Your task to perform on an android device: Open Maps and search for coffee Image 0: 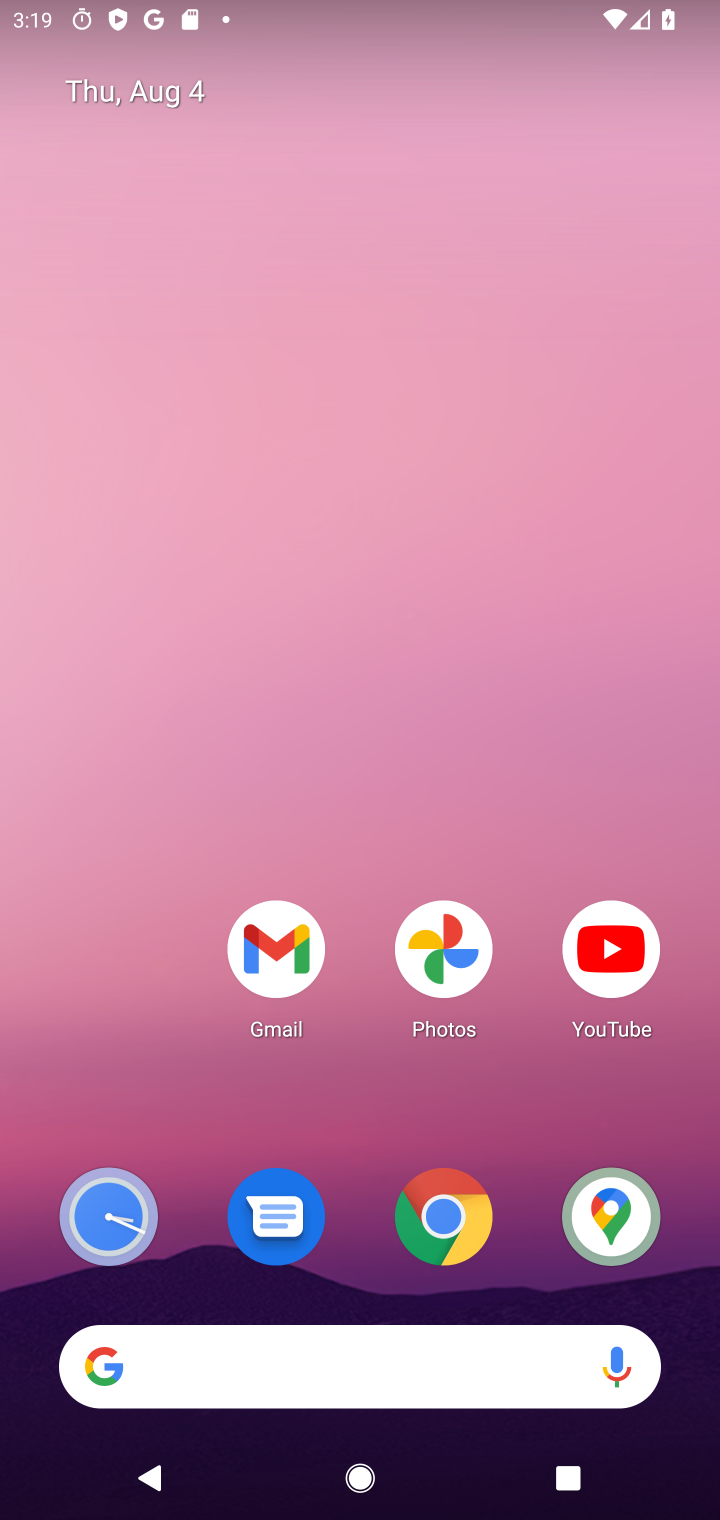
Step 0: click (613, 1207)
Your task to perform on an android device: Open Maps and search for coffee Image 1: 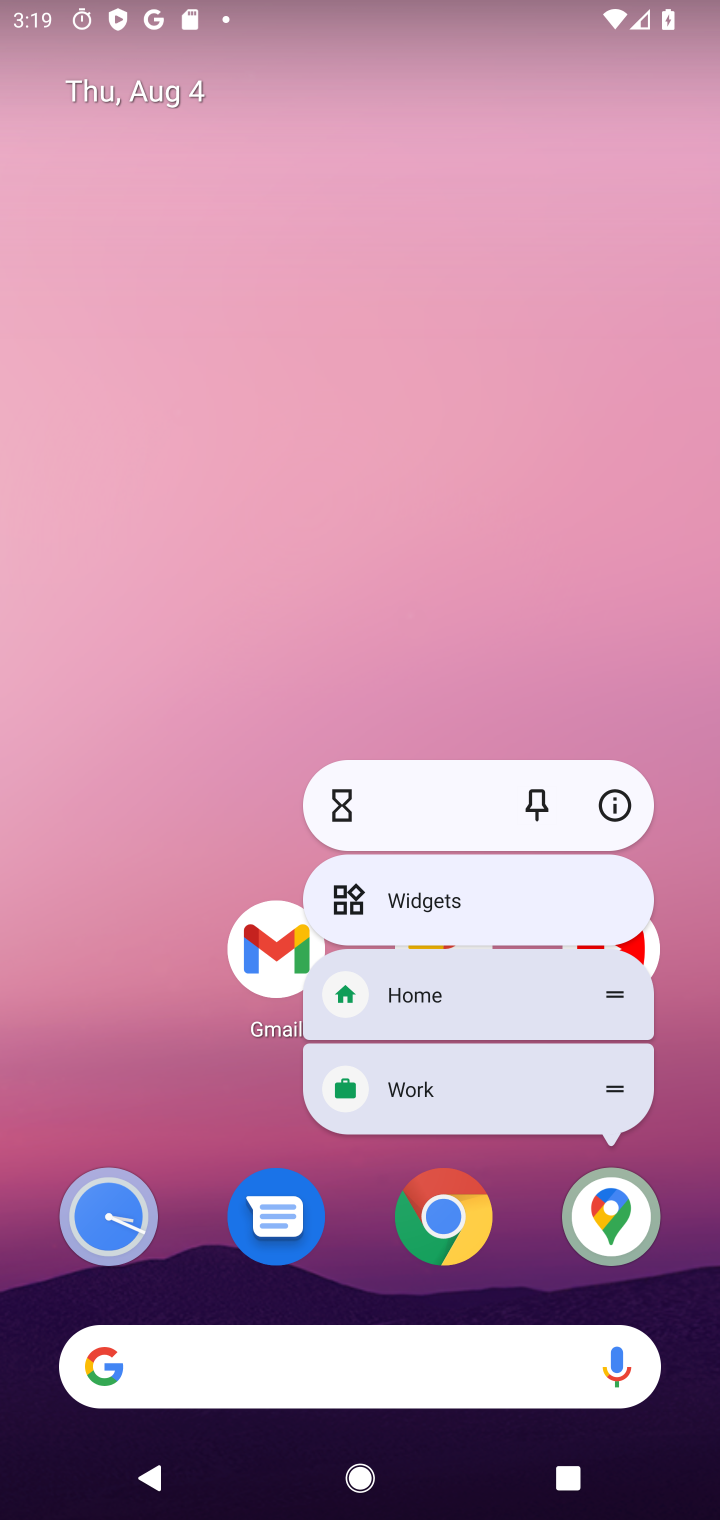
Step 1: click (609, 1205)
Your task to perform on an android device: Open Maps and search for coffee Image 2: 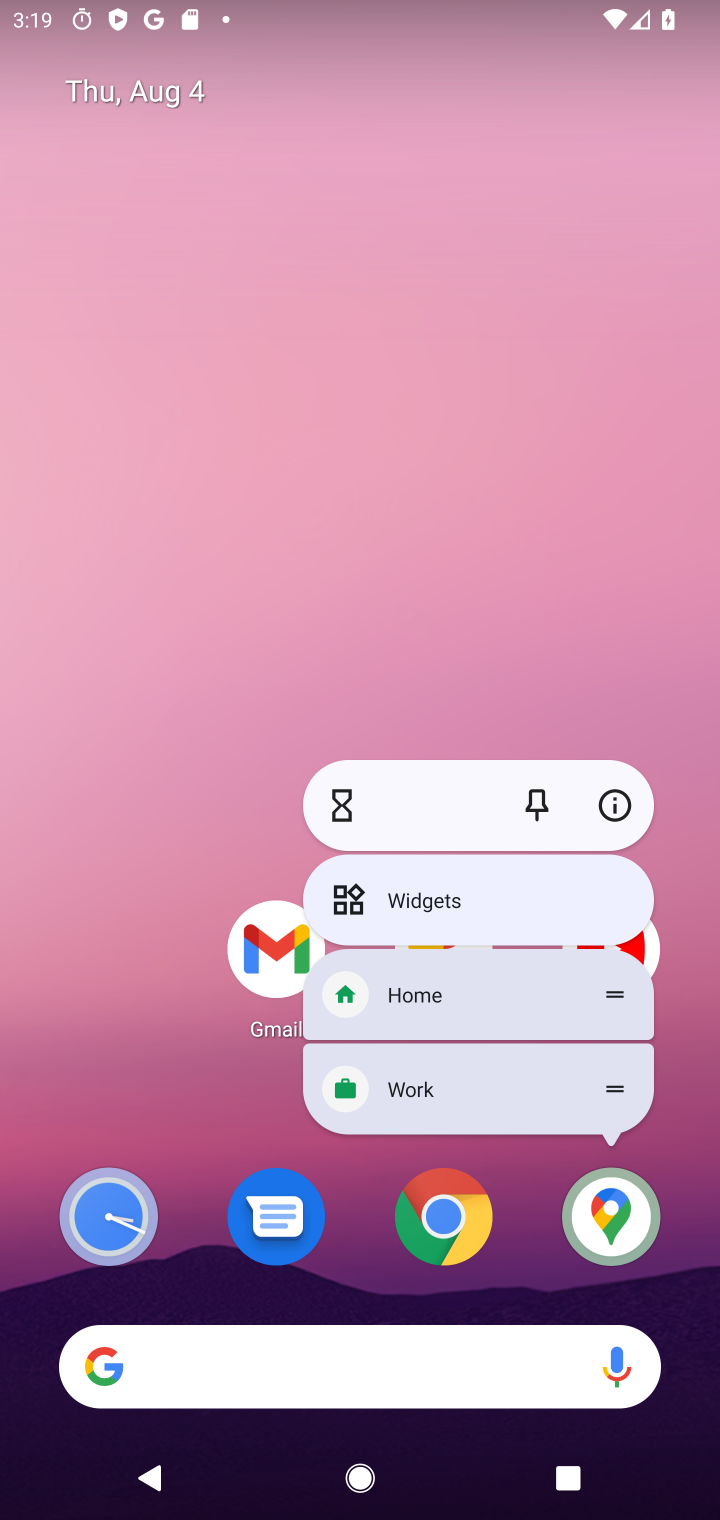
Step 2: click (603, 1234)
Your task to perform on an android device: Open Maps and search for coffee Image 3: 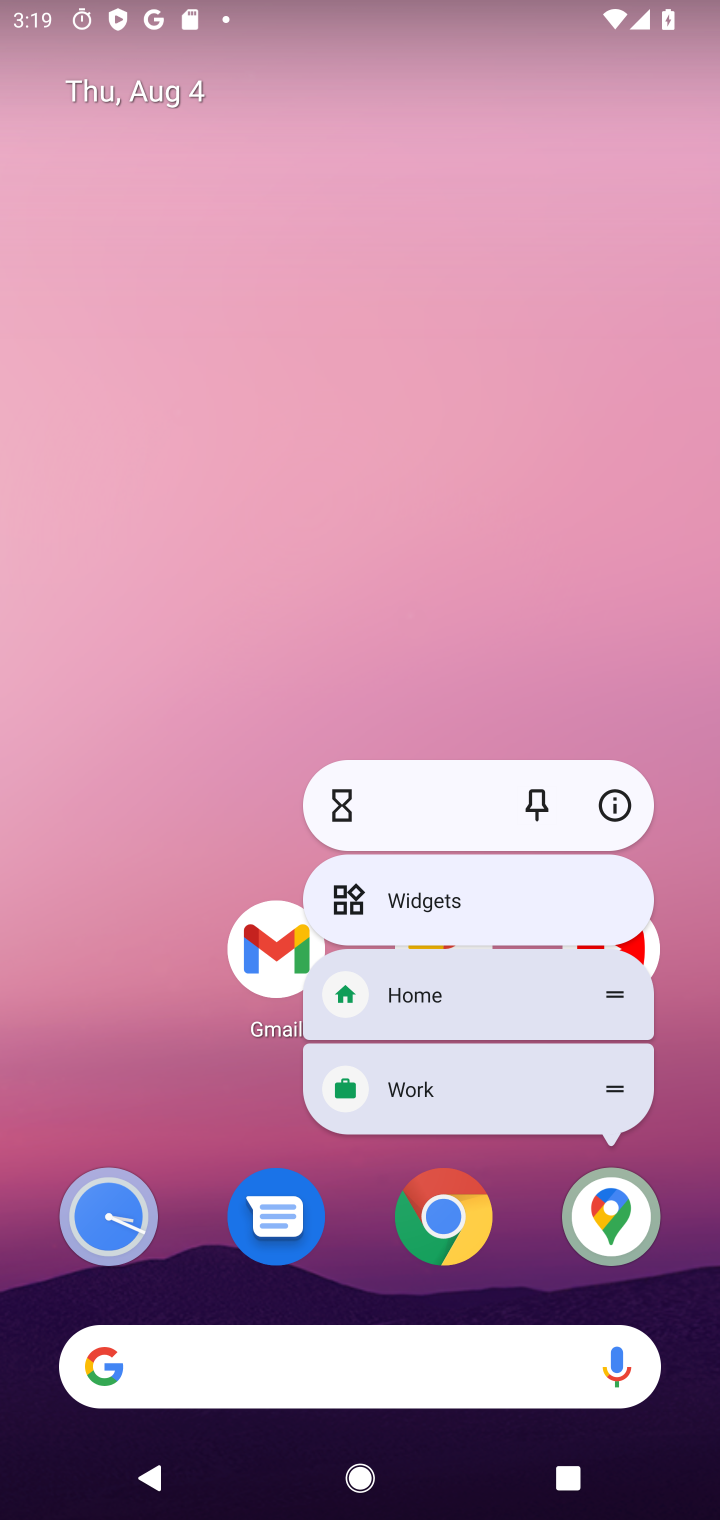
Step 3: click (617, 1215)
Your task to perform on an android device: Open Maps and search for coffee Image 4: 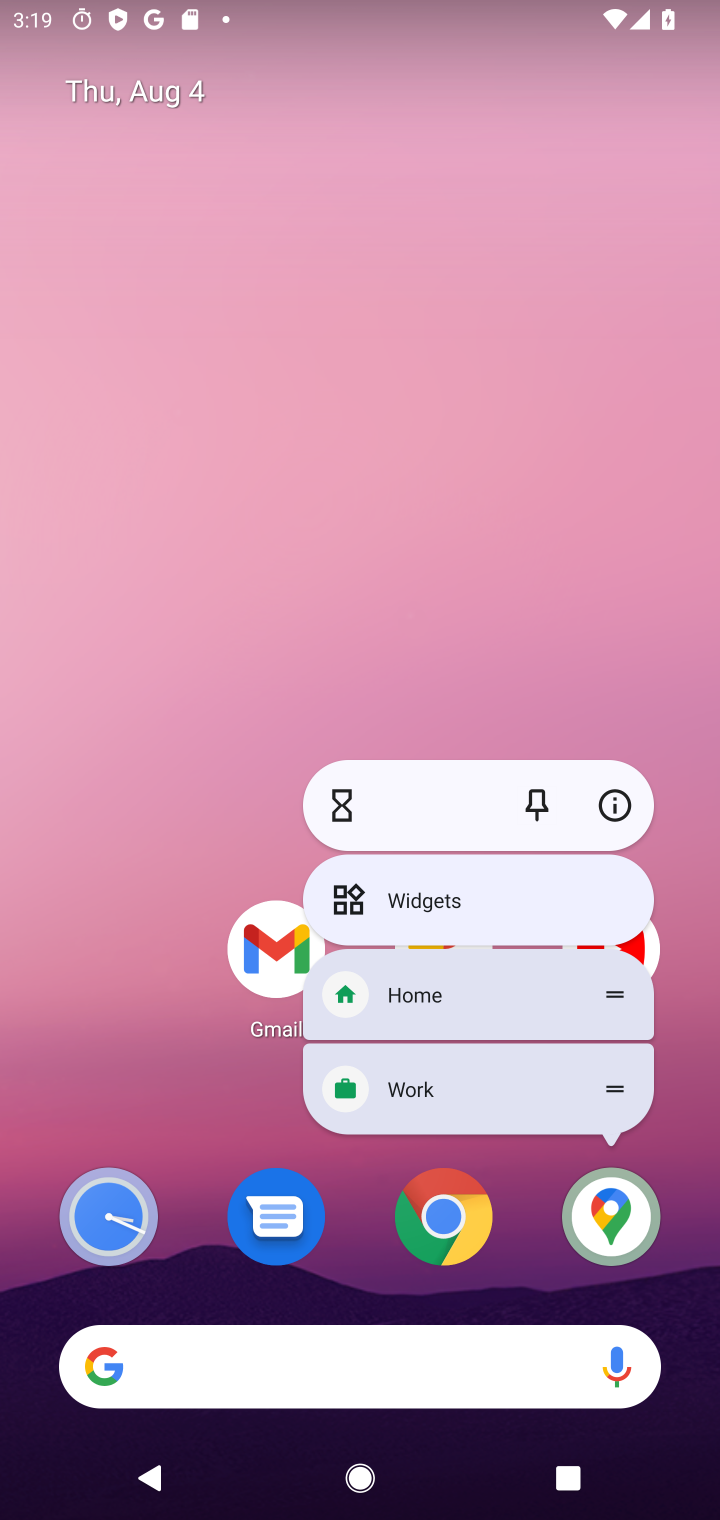
Step 4: click (617, 1215)
Your task to perform on an android device: Open Maps and search for coffee Image 5: 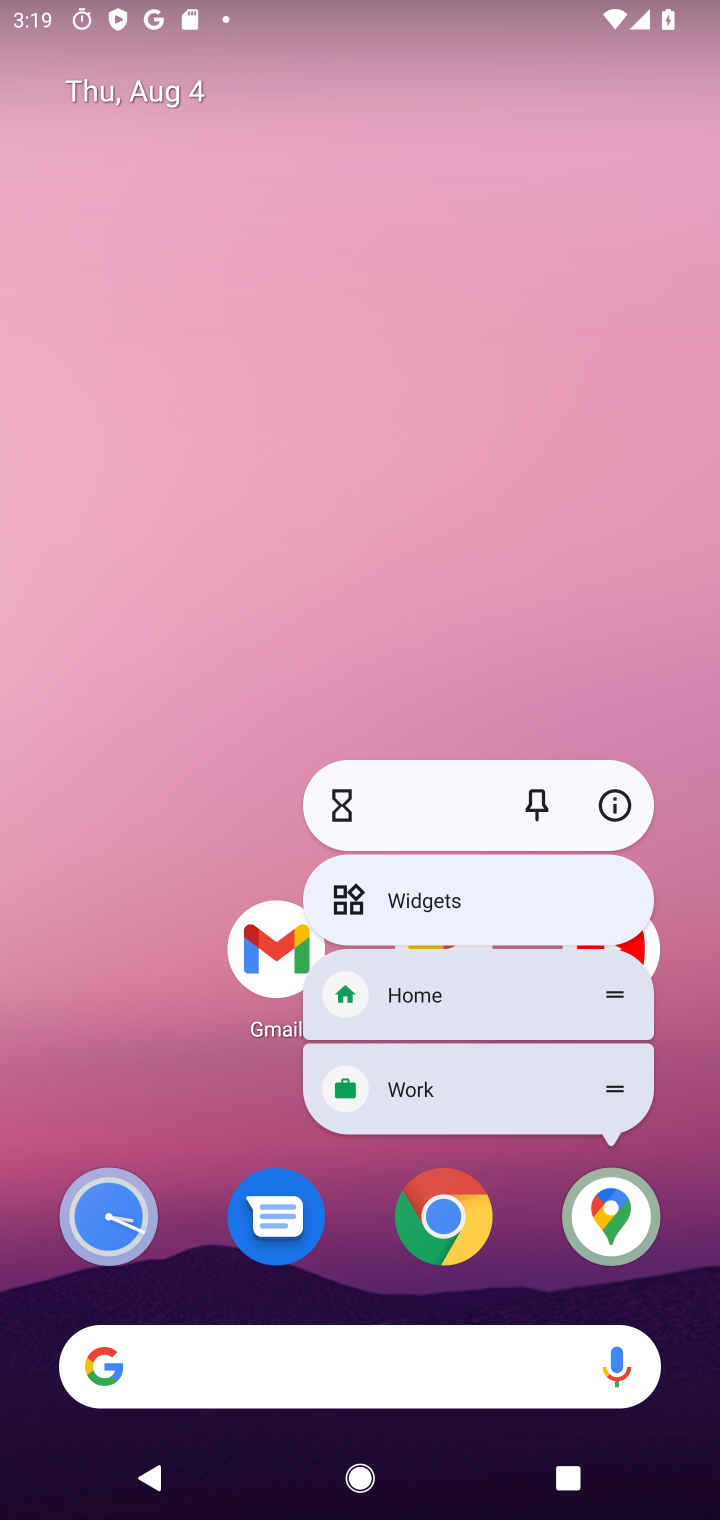
Step 5: click (621, 1211)
Your task to perform on an android device: Open Maps and search for coffee Image 6: 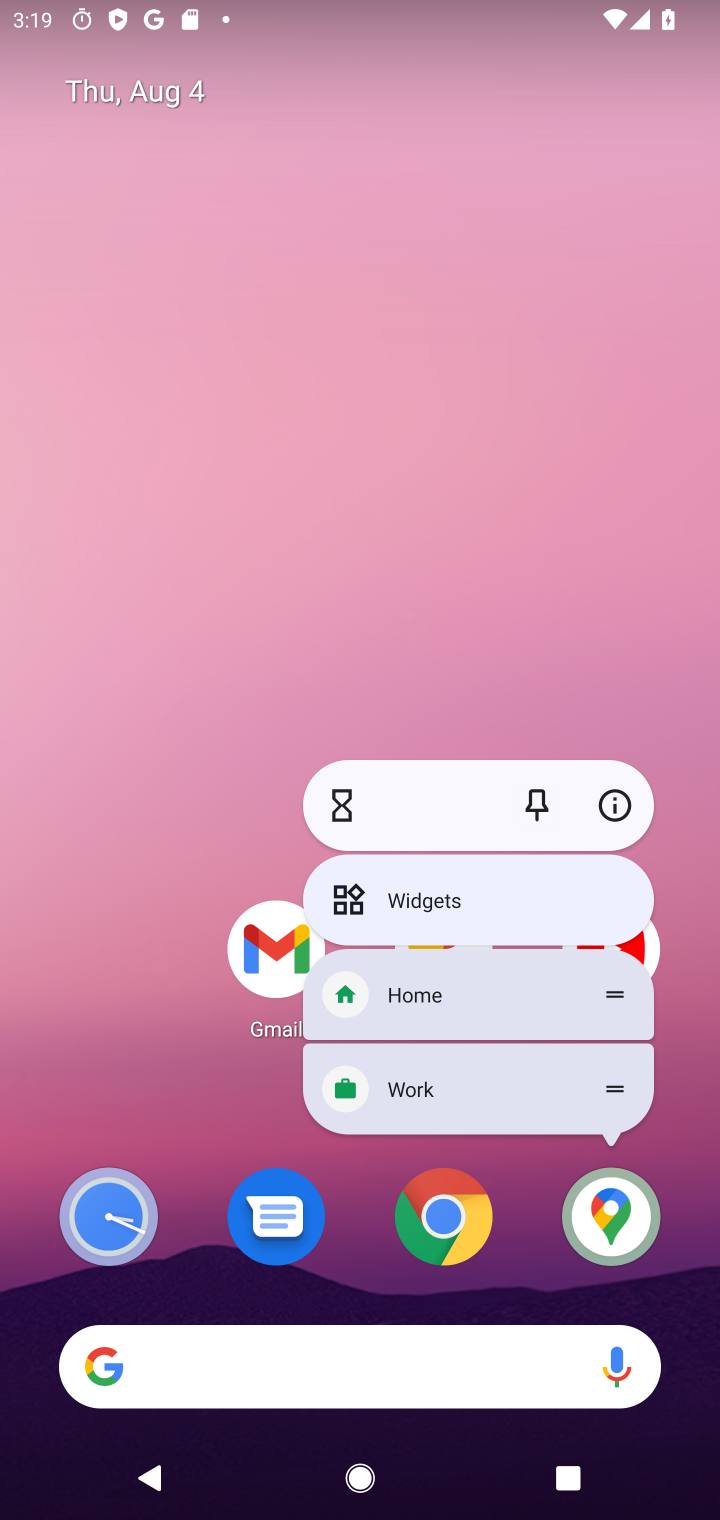
Step 6: click (613, 1215)
Your task to perform on an android device: Open Maps and search for coffee Image 7: 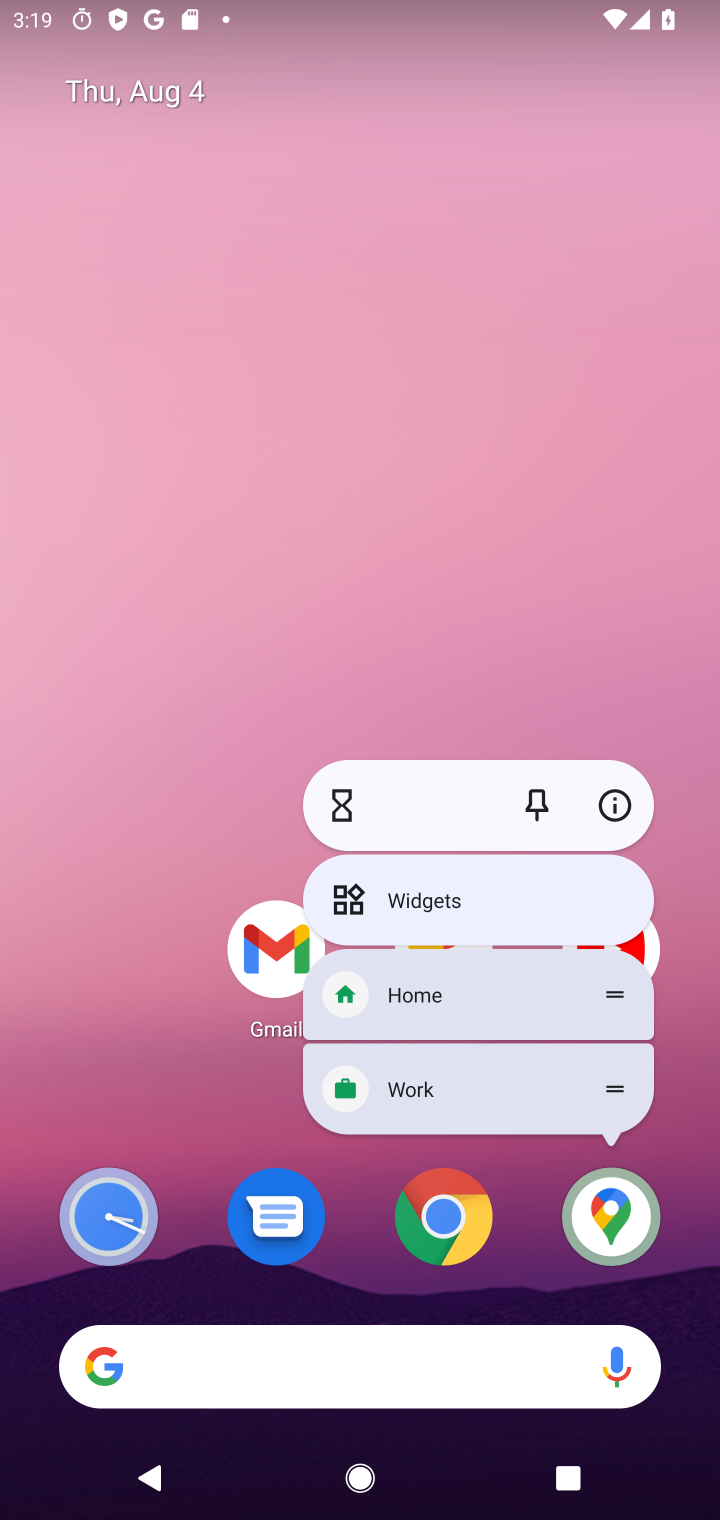
Step 7: click (609, 1219)
Your task to perform on an android device: Open Maps and search for coffee Image 8: 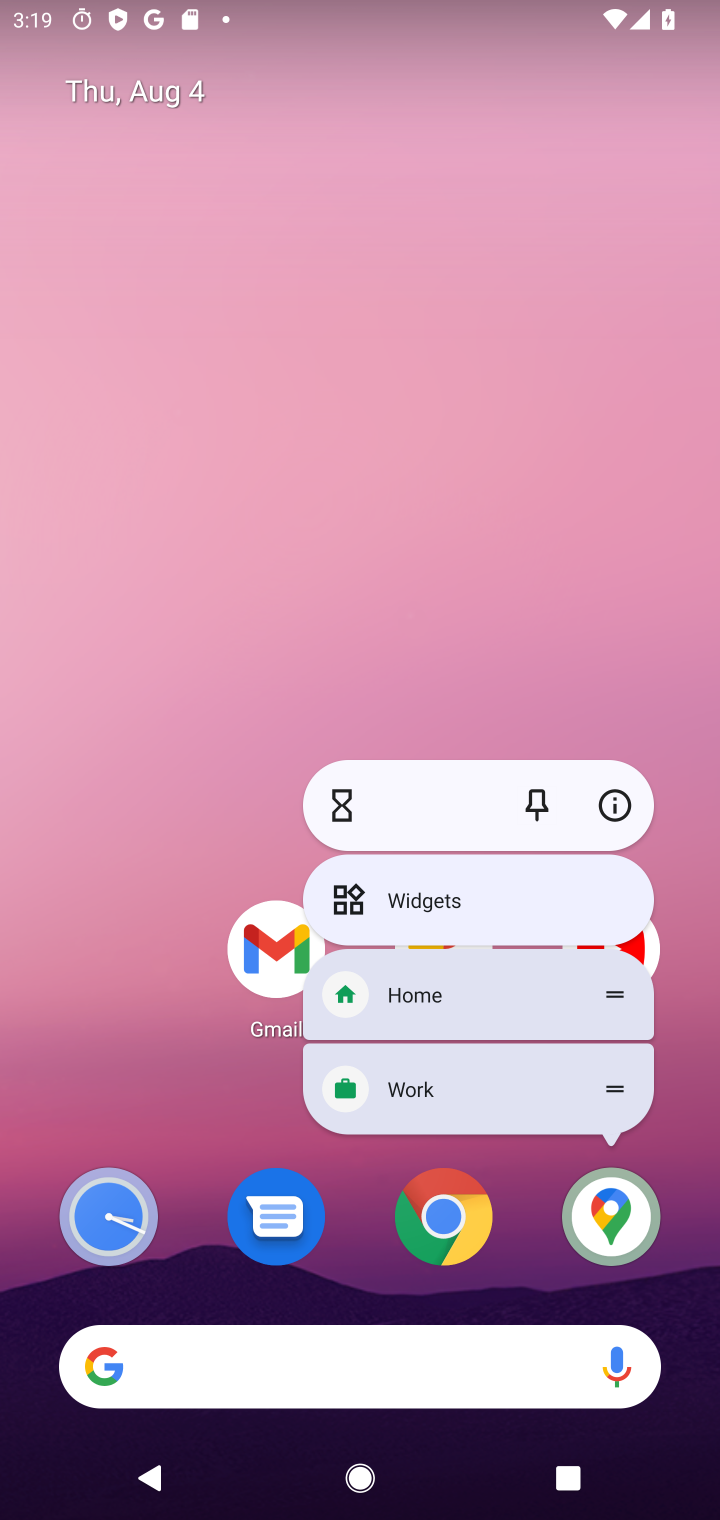
Step 8: click (598, 1184)
Your task to perform on an android device: Open Maps and search for coffee Image 9: 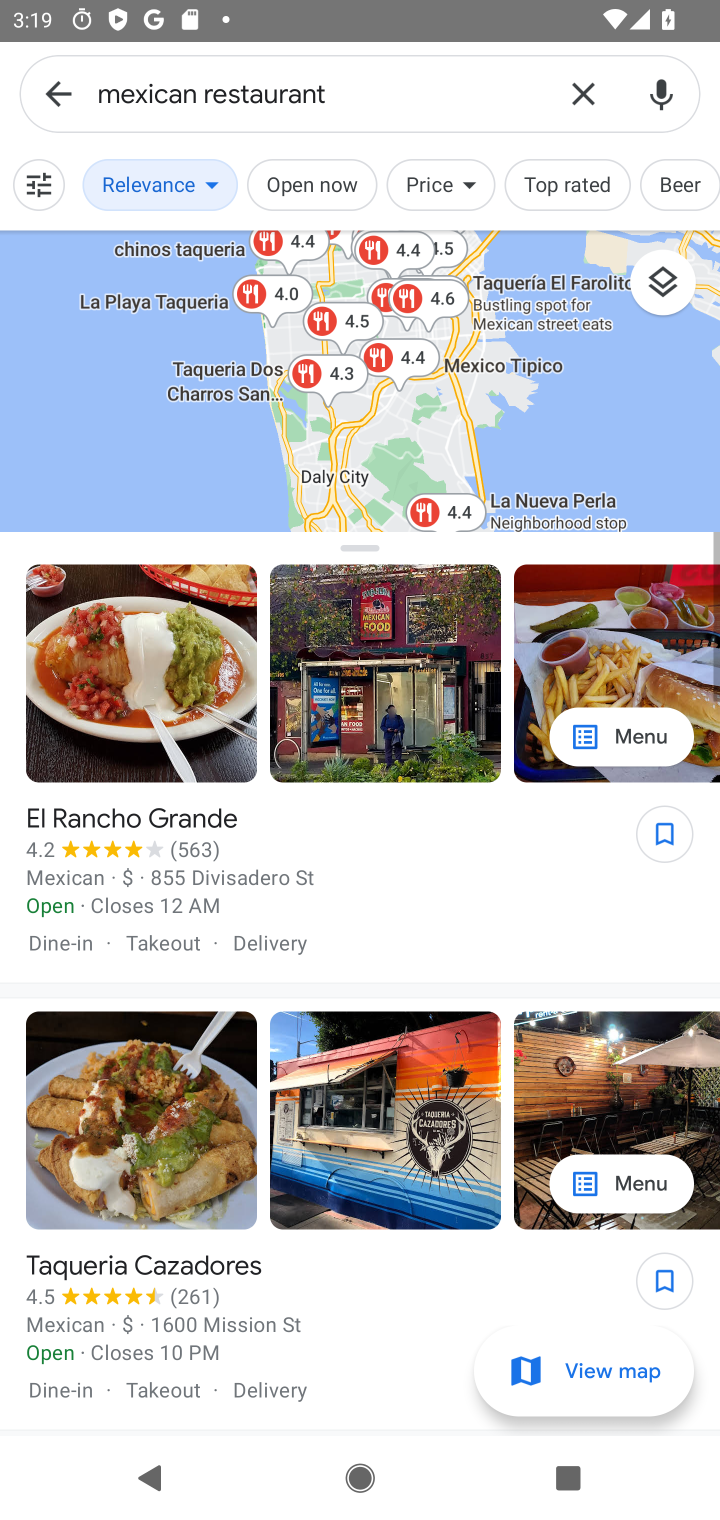
Step 9: click (597, 74)
Your task to perform on an android device: Open Maps and search for coffee Image 10: 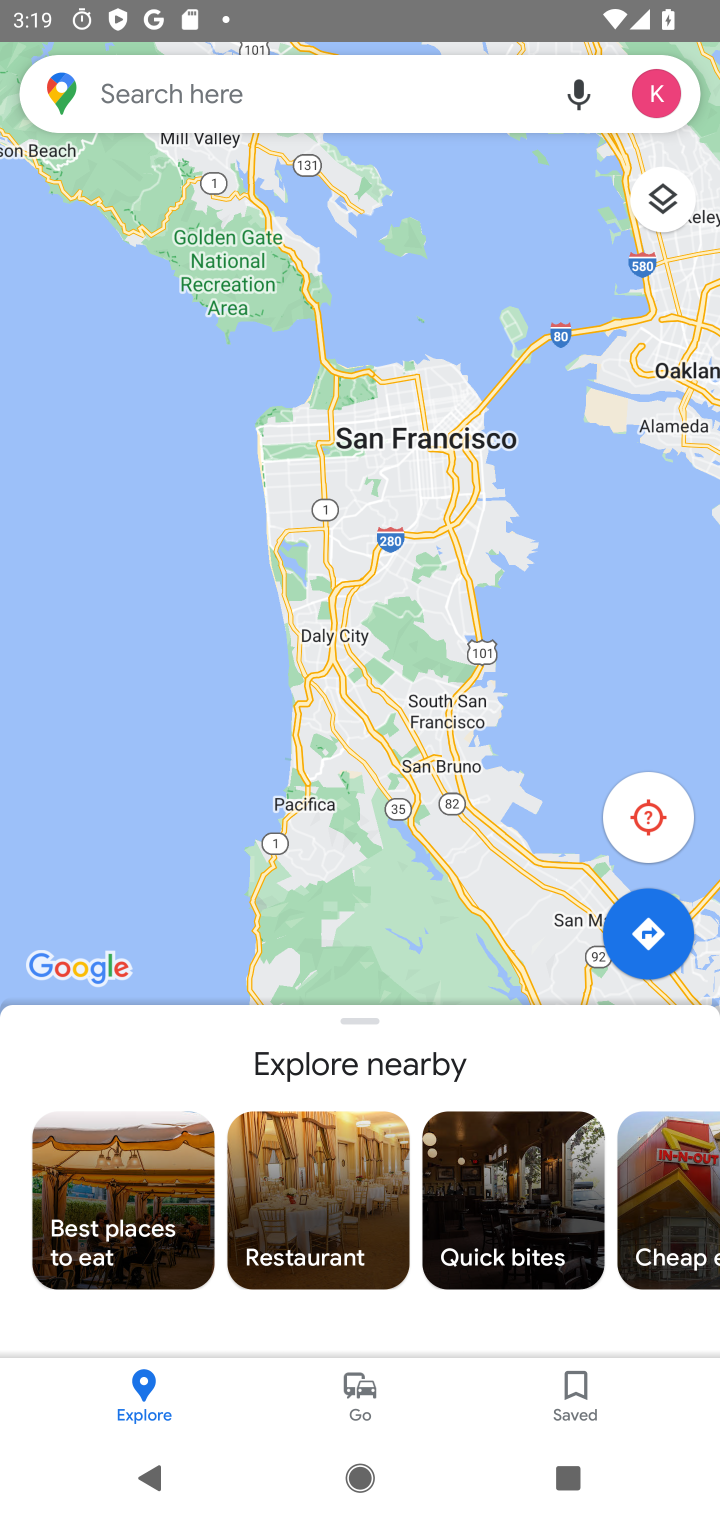
Step 10: click (382, 85)
Your task to perform on an android device: Open Maps and search for coffee Image 11: 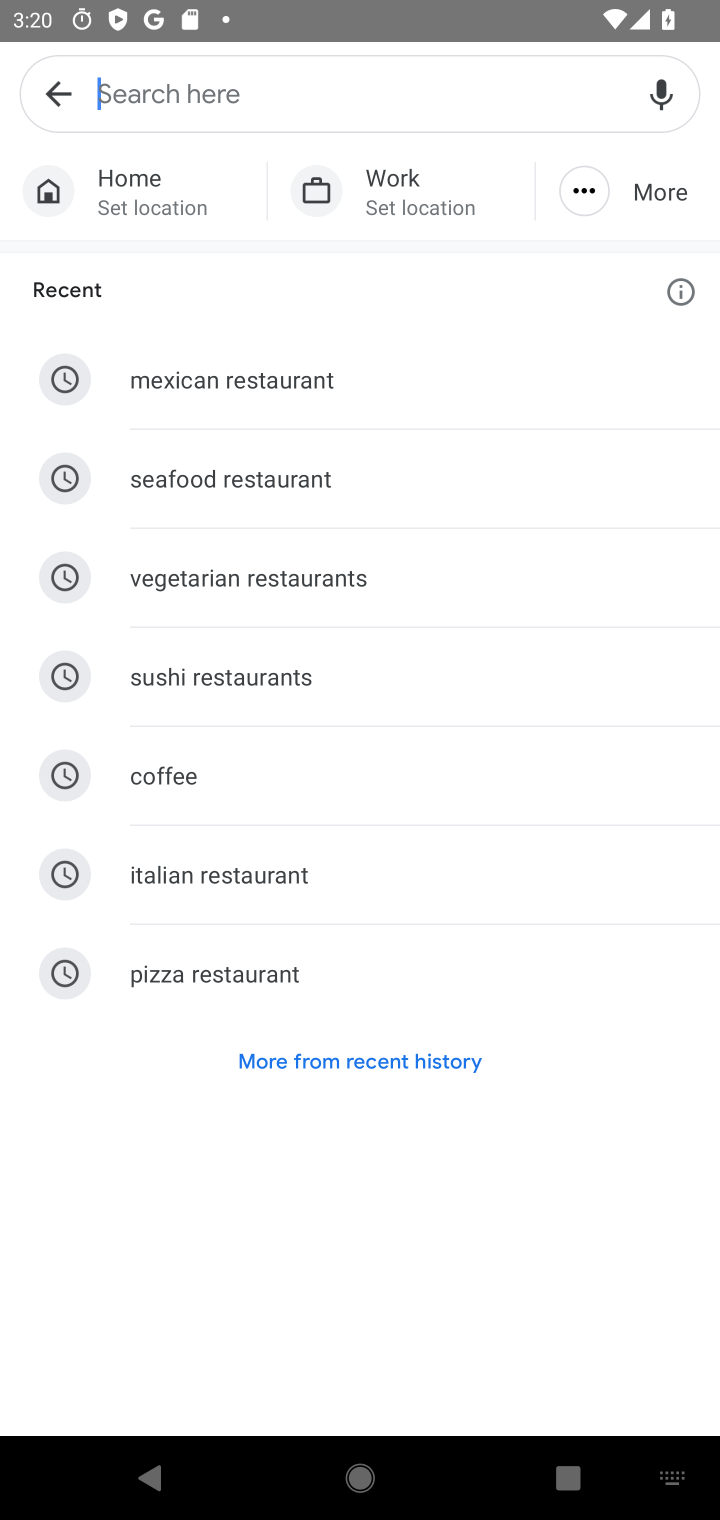
Step 11: type "coffee"
Your task to perform on an android device: Open Maps and search for coffee Image 12: 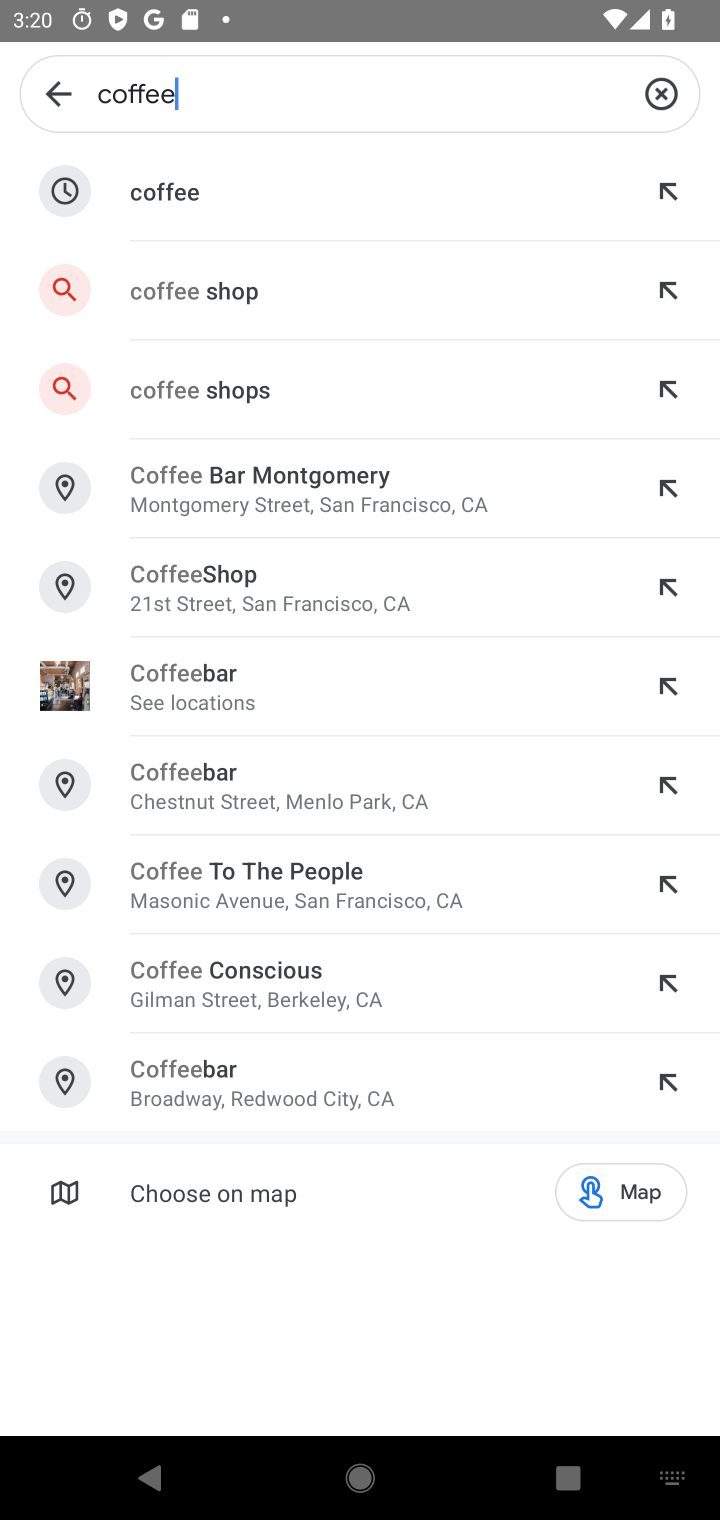
Step 12: click (236, 184)
Your task to perform on an android device: Open Maps and search for coffee Image 13: 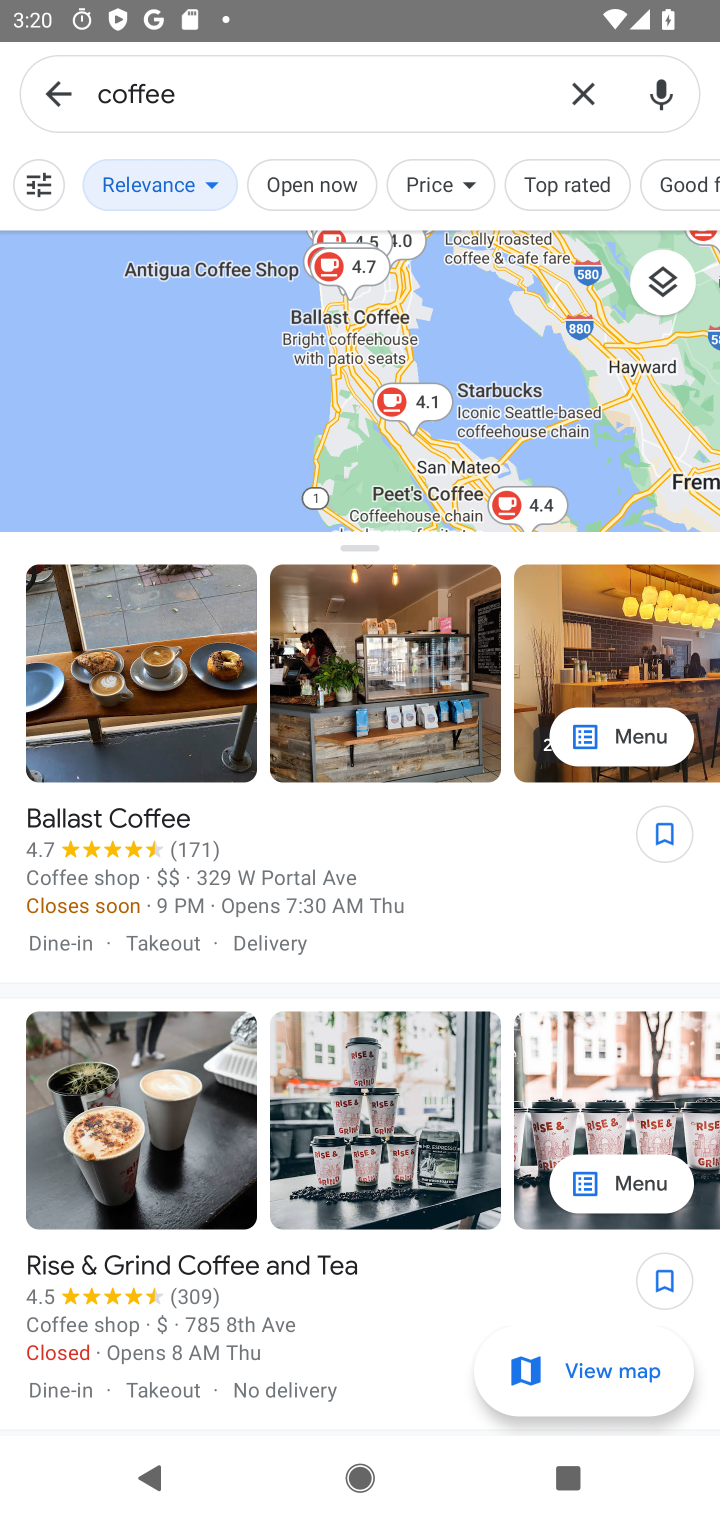
Step 13: task complete